Your task to perform on an android device: turn off javascript in the chrome app Image 0: 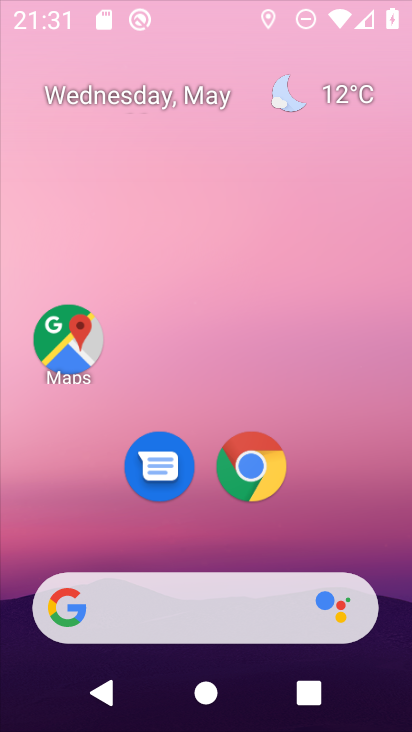
Step 0: press home button
Your task to perform on an android device: turn off javascript in the chrome app Image 1: 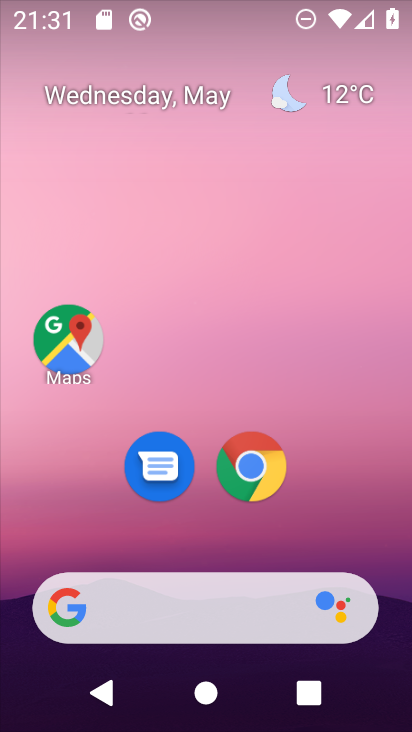
Step 1: click (251, 464)
Your task to perform on an android device: turn off javascript in the chrome app Image 2: 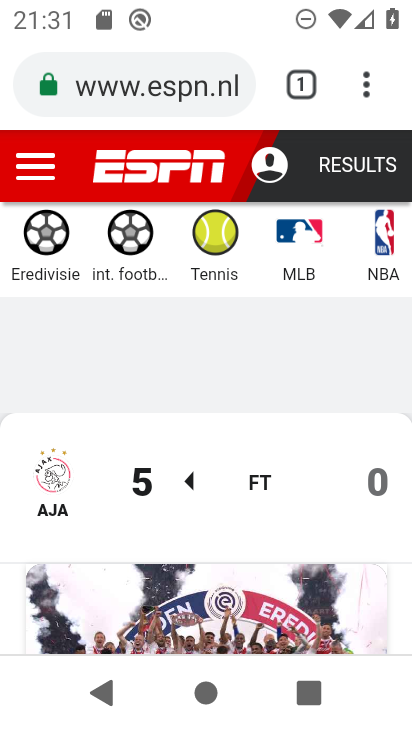
Step 2: click (374, 75)
Your task to perform on an android device: turn off javascript in the chrome app Image 3: 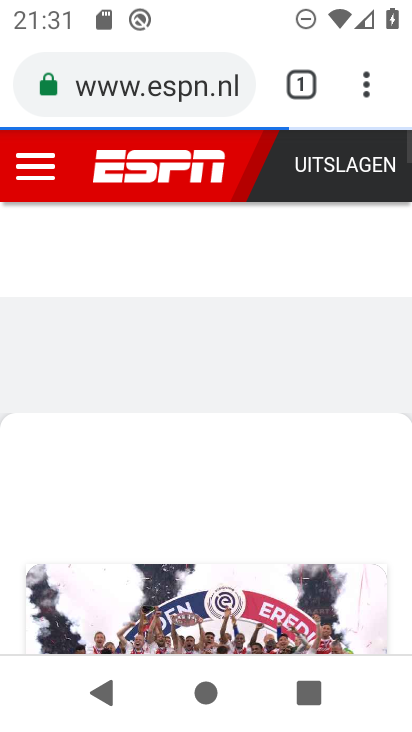
Step 3: click (374, 75)
Your task to perform on an android device: turn off javascript in the chrome app Image 4: 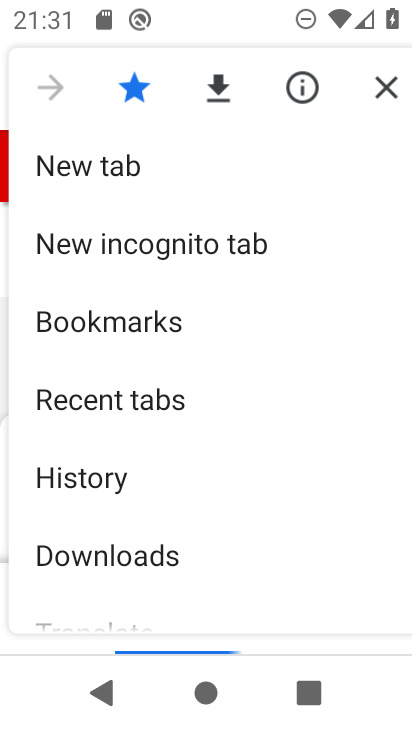
Step 4: drag from (186, 541) to (199, 157)
Your task to perform on an android device: turn off javascript in the chrome app Image 5: 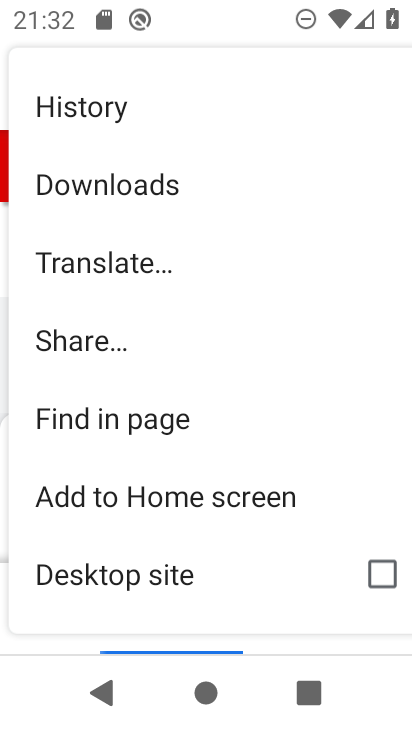
Step 5: drag from (163, 572) to (200, 215)
Your task to perform on an android device: turn off javascript in the chrome app Image 6: 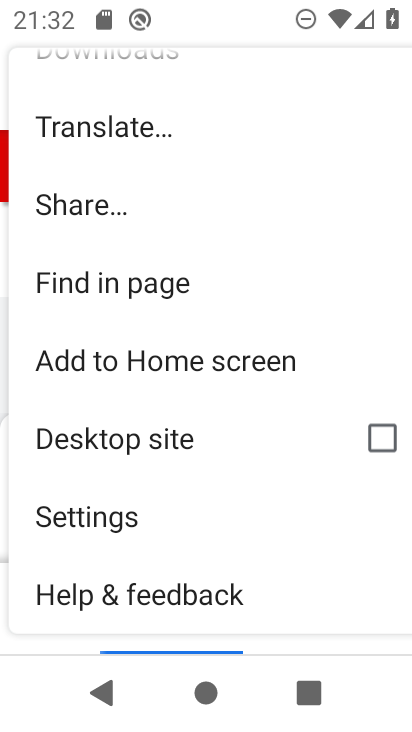
Step 6: click (152, 516)
Your task to perform on an android device: turn off javascript in the chrome app Image 7: 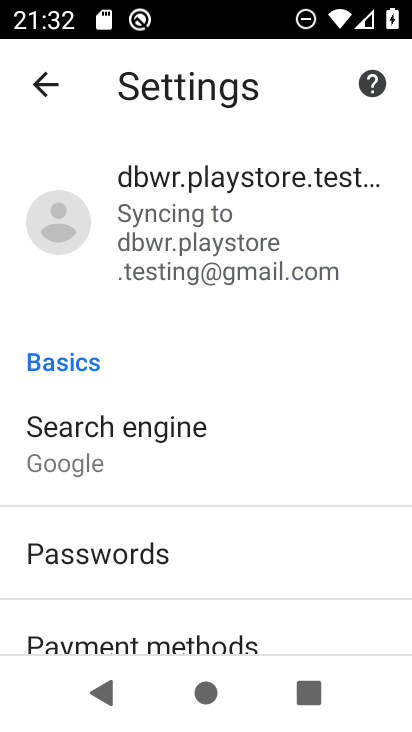
Step 7: drag from (230, 599) to (257, 141)
Your task to perform on an android device: turn off javascript in the chrome app Image 8: 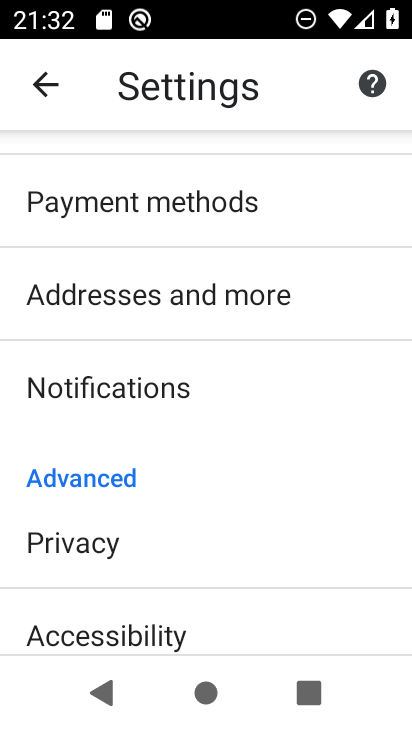
Step 8: drag from (218, 624) to (241, 24)
Your task to perform on an android device: turn off javascript in the chrome app Image 9: 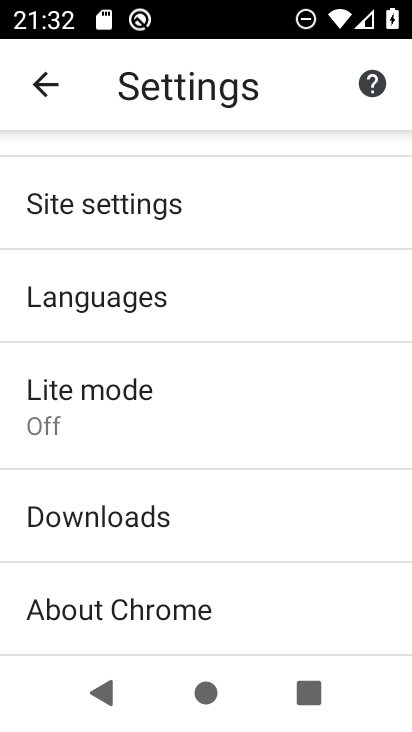
Step 9: click (199, 198)
Your task to perform on an android device: turn off javascript in the chrome app Image 10: 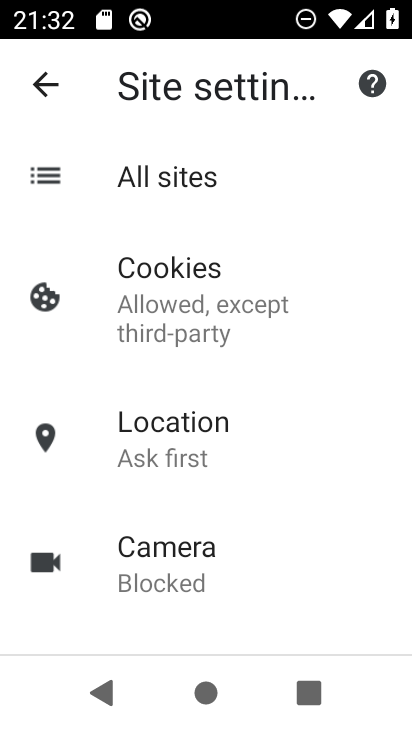
Step 10: drag from (243, 554) to (258, 137)
Your task to perform on an android device: turn off javascript in the chrome app Image 11: 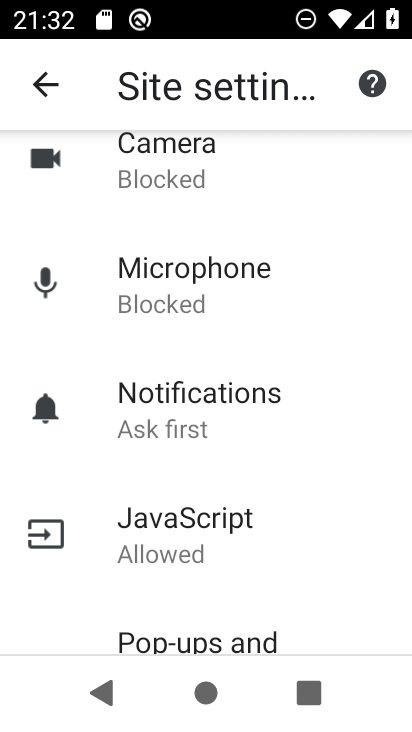
Step 11: click (227, 542)
Your task to perform on an android device: turn off javascript in the chrome app Image 12: 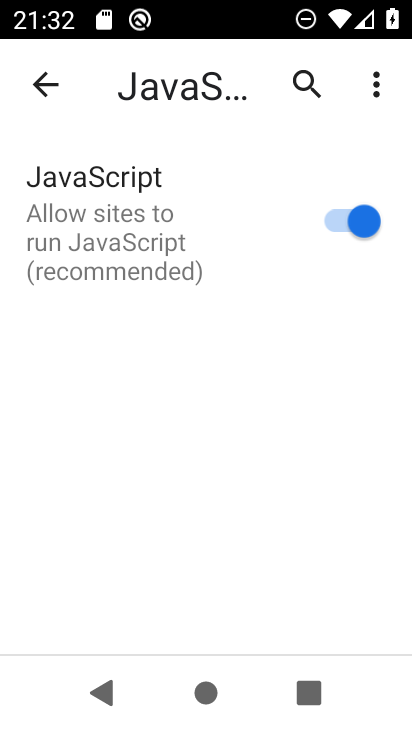
Step 12: click (351, 212)
Your task to perform on an android device: turn off javascript in the chrome app Image 13: 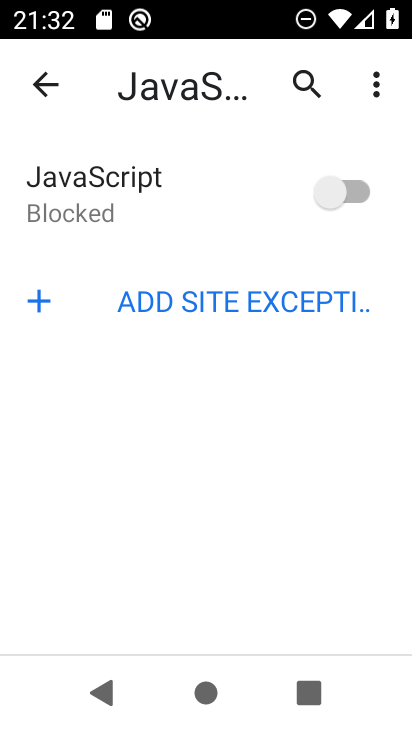
Step 13: task complete